Your task to perform on an android device: visit the assistant section in the google photos Image 0: 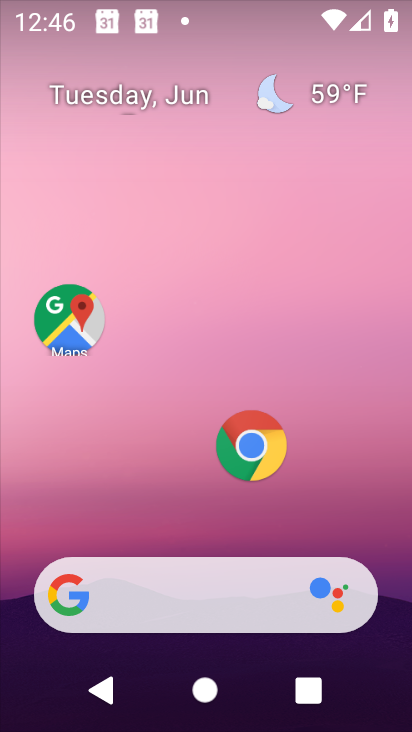
Step 0: drag from (170, 528) to (214, 70)
Your task to perform on an android device: visit the assistant section in the google photos Image 1: 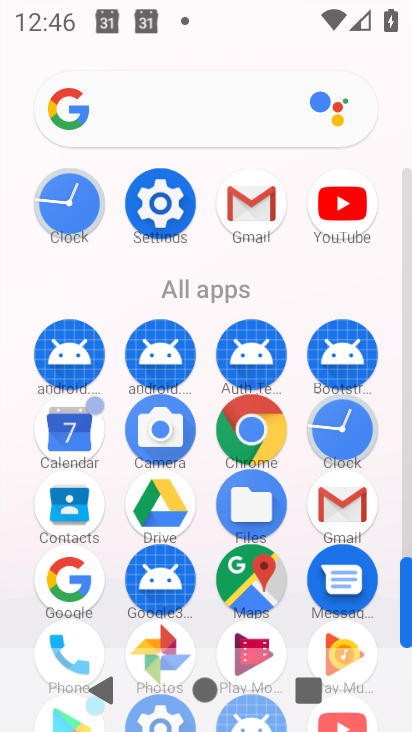
Step 1: drag from (200, 562) to (210, 243)
Your task to perform on an android device: visit the assistant section in the google photos Image 2: 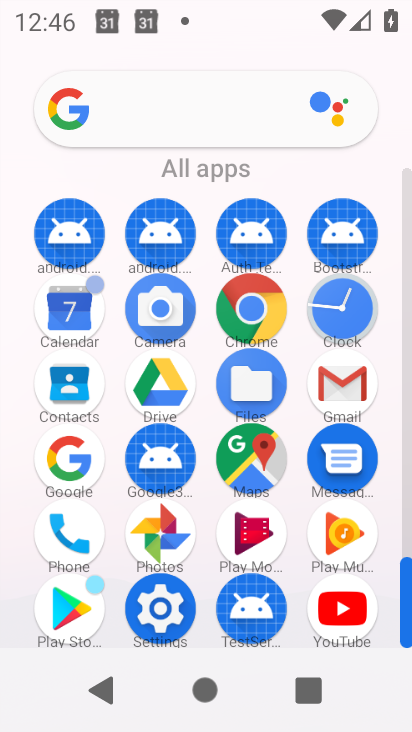
Step 2: click (142, 534)
Your task to perform on an android device: visit the assistant section in the google photos Image 3: 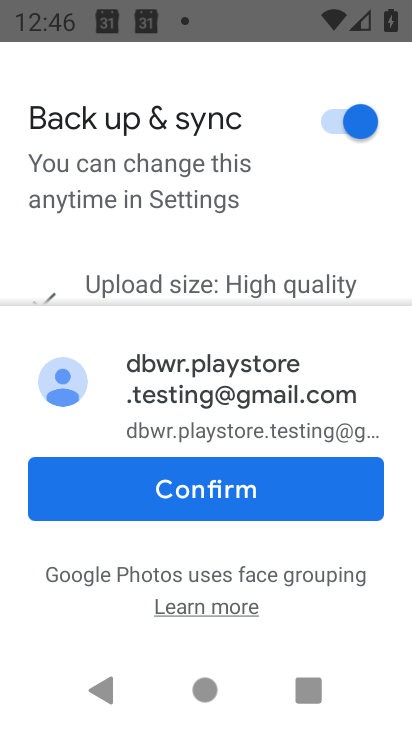
Step 3: click (143, 455)
Your task to perform on an android device: visit the assistant section in the google photos Image 4: 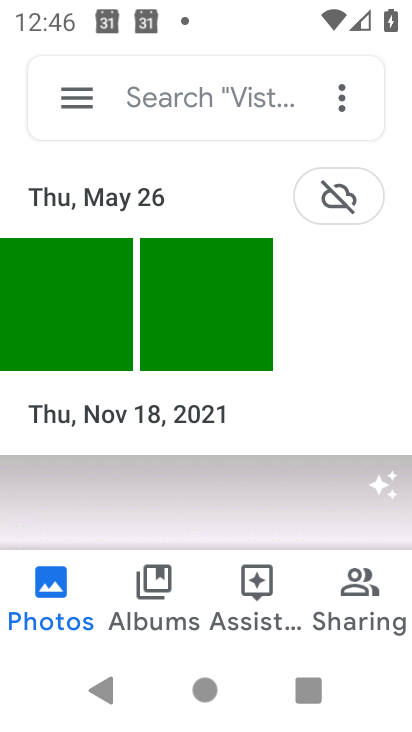
Step 4: click (261, 613)
Your task to perform on an android device: visit the assistant section in the google photos Image 5: 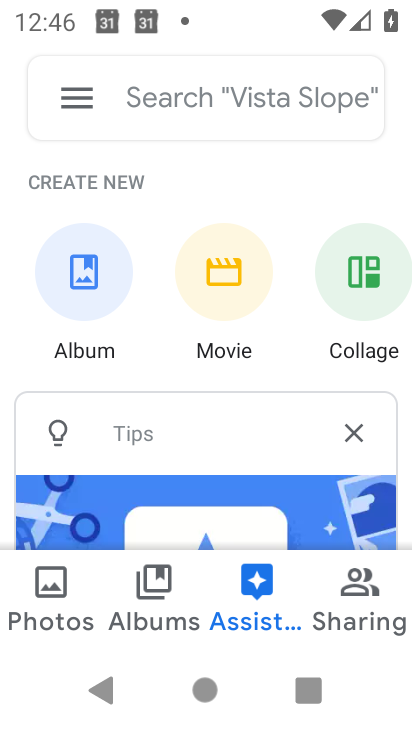
Step 5: task complete